Your task to perform on an android device: star an email in the gmail app Image 0: 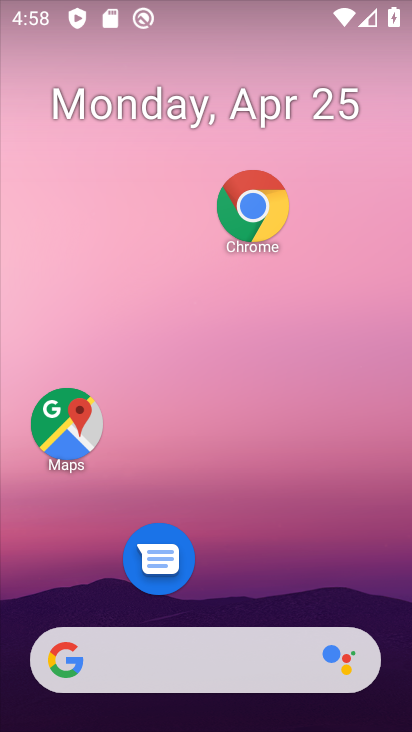
Step 0: drag from (254, 447) to (273, 3)
Your task to perform on an android device: star an email in the gmail app Image 1: 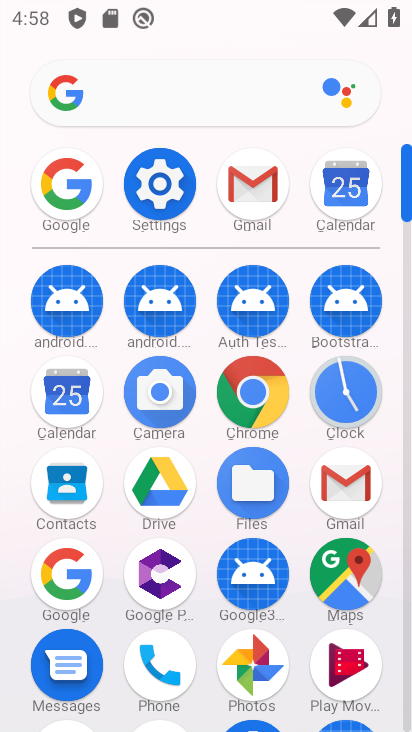
Step 1: click (254, 185)
Your task to perform on an android device: star an email in the gmail app Image 2: 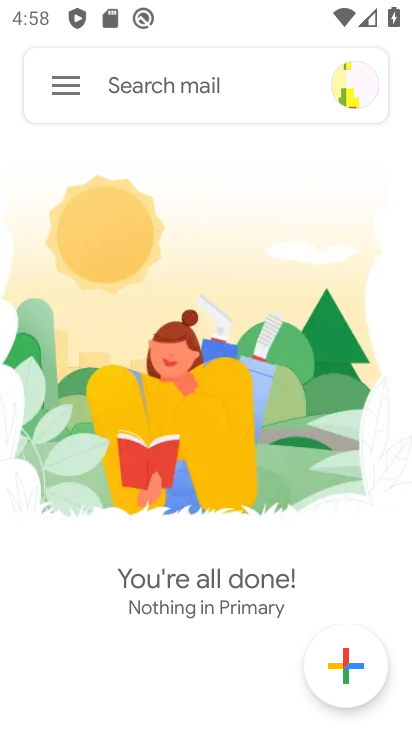
Step 2: click (72, 85)
Your task to perform on an android device: star an email in the gmail app Image 3: 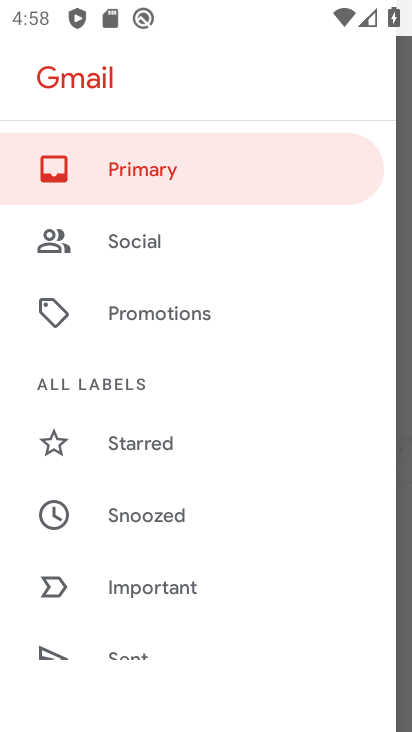
Step 3: drag from (165, 379) to (175, 314)
Your task to perform on an android device: star an email in the gmail app Image 4: 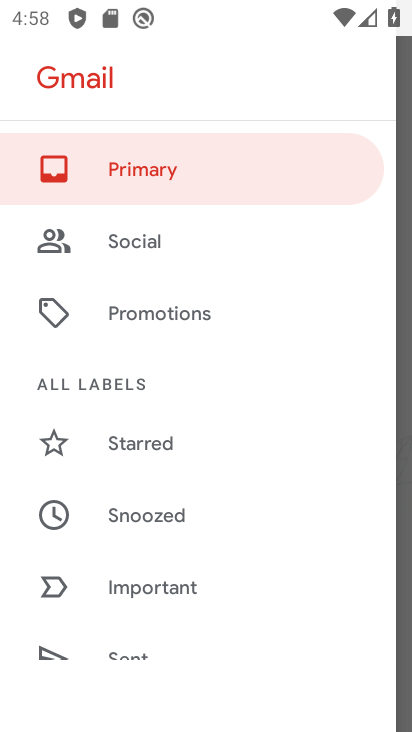
Step 4: drag from (202, 444) to (252, 369)
Your task to perform on an android device: star an email in the gmail app Image 5: 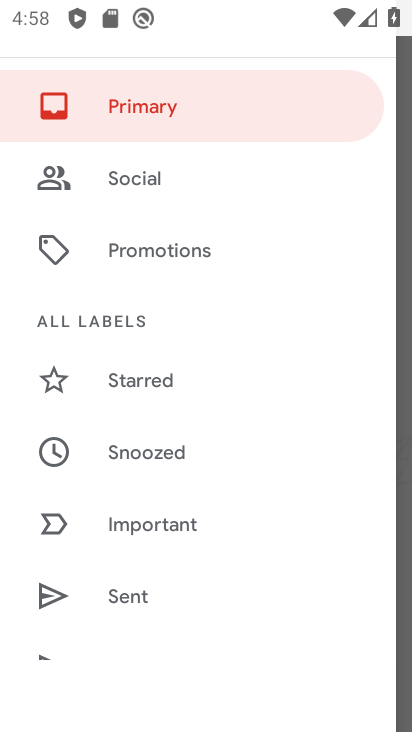
Step 5: drag from (211, 430) to (225, 373)
Your task to perform on an android device: star an email in the gmail app Image 6: 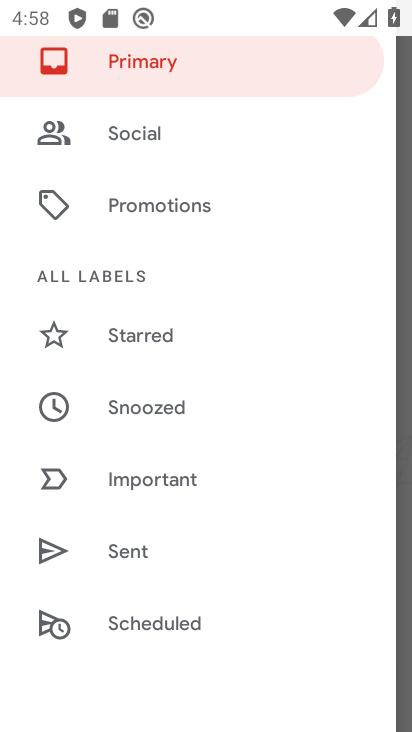
Step 6: drag from (196, 436) to (206, 371)
Your task to perform on an android device: star an email in the gmail app Image 7: 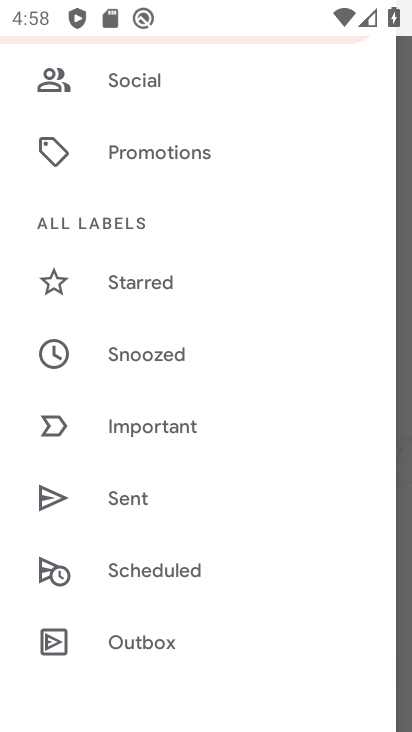
Step 7: drag from (141, 474) to (158, 369)
Your task to perform on an android device: star an email in the gmail app Image 8: 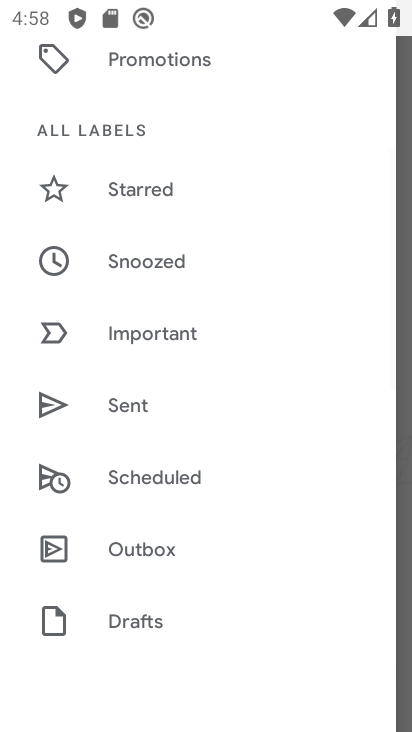
Step 8: drag from (153, 449) to (164, 375)
Your task to perform on an android device: star an email in the gmail app Image 9: 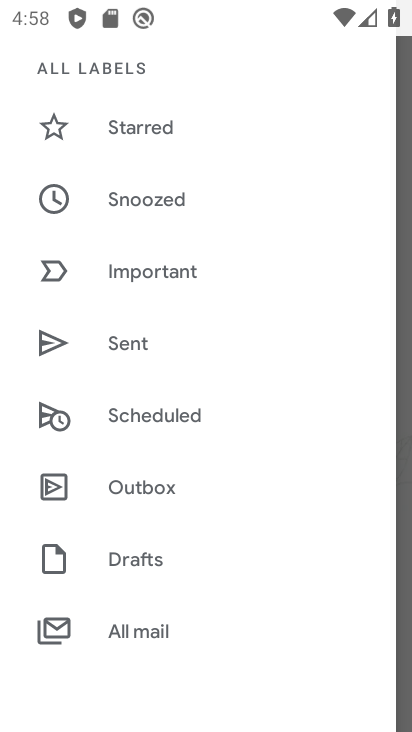
Step 9: drag from (145, 458) to (179, 388)
Your task to perform on an android device: star an email in the gmail app Image 10: 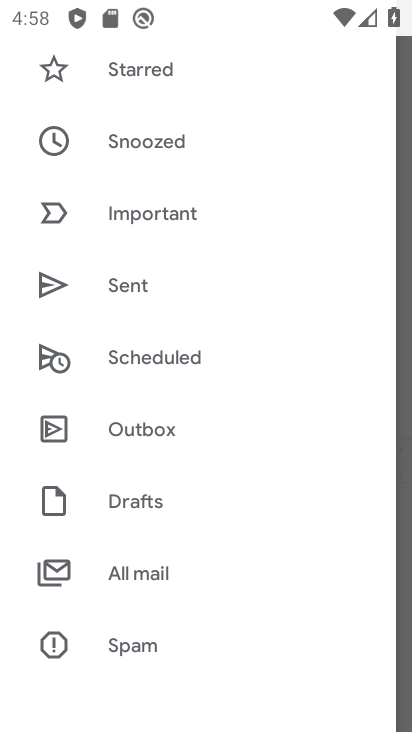
Step 10: click (160, 80)
Your task to perform on an android device: star an email in the gmail app Image 11: 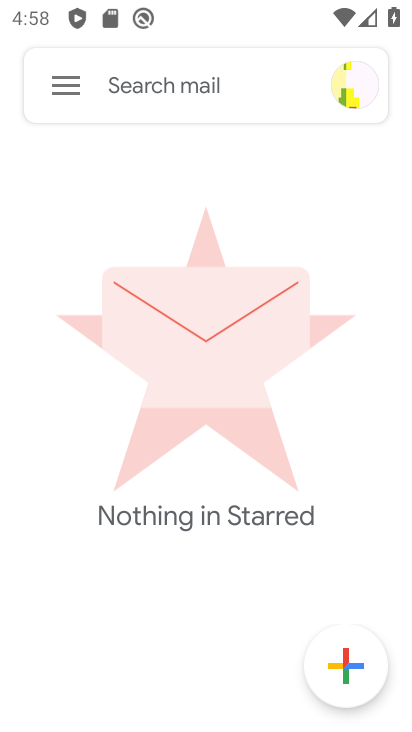
Step 11: task complete